Your task to perform on an android device: Do I have any events this weekend? Image 0: 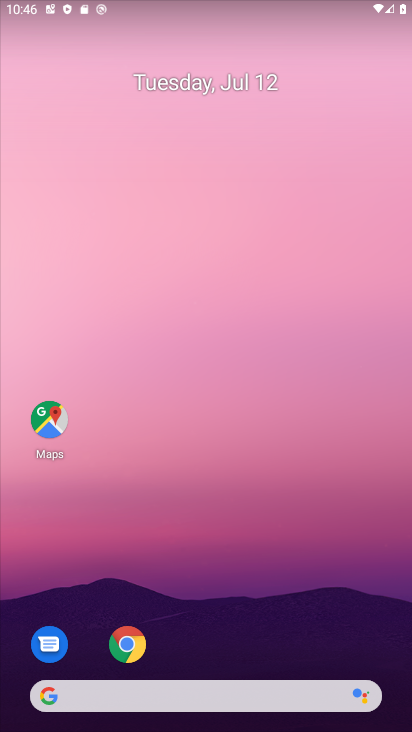
Step 0: drag from (216, 665) to (227, 3)
Your task to perform on an android device: Do I have any events this weekend? Image 1: 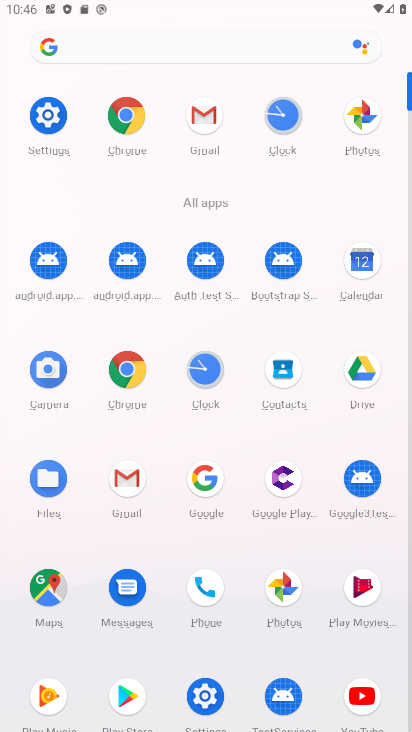
Step 1: click (357, 259)
Your task to perform on an android device: Do I have any events this weekend? Image 2: 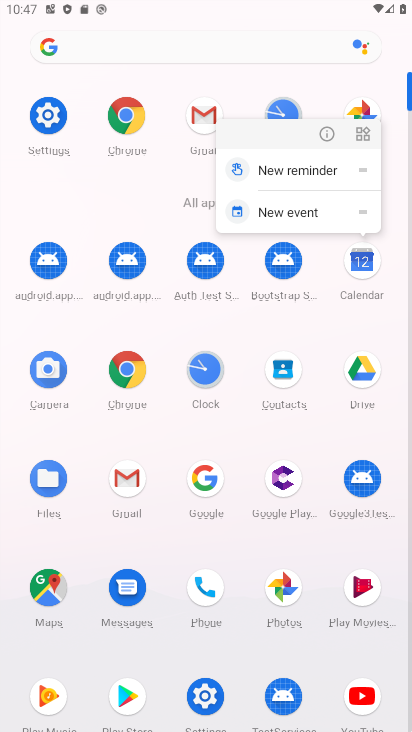
Step 2: click (365, 259)
Your task to perform on an android device: Do I have any events this weekend? Image 3: 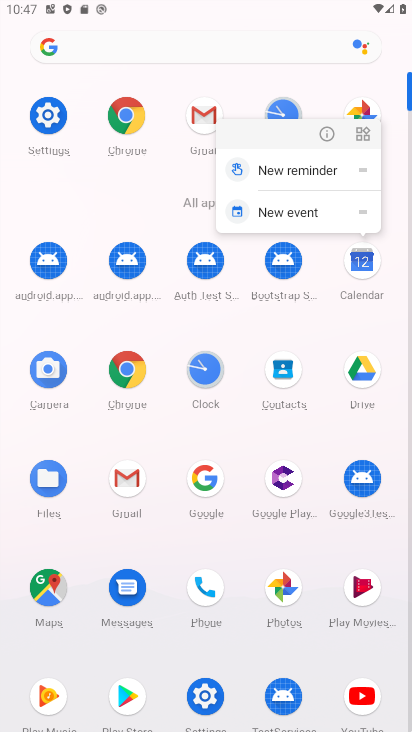
Step 3: click (359, 265)
Your task to perform on an android device: Do I have any events this weekend? Image 4: 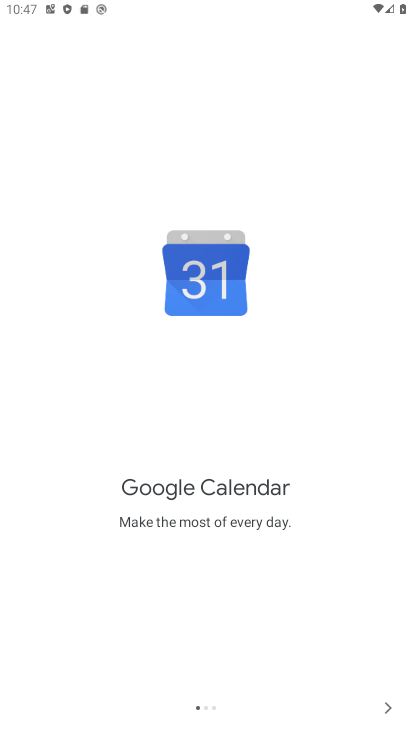
Step 4: click (387, 708)
Your task to perform on an android device: Do I have any events this weekend? Image 5: 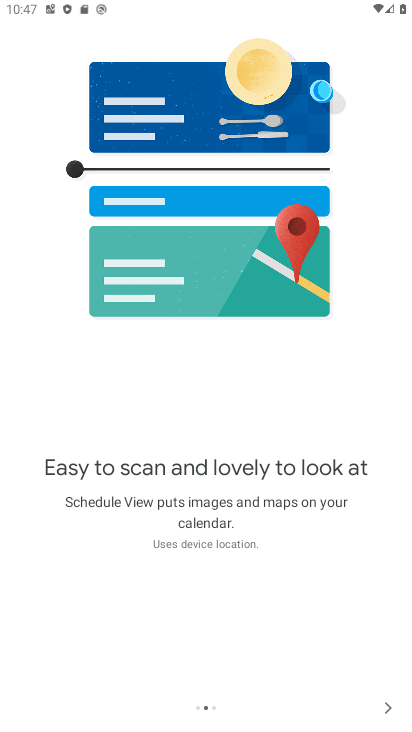
Step 5: click (388, 710)
Your task to perform on an android device: Do I have any events this weekend? Image 6: 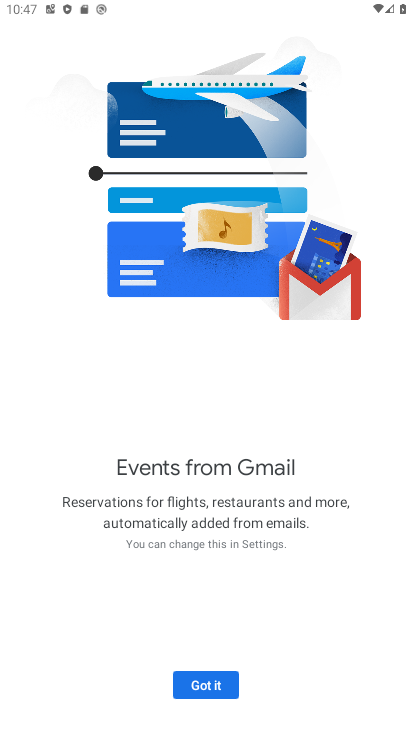
Step 6: click (205, 683)
Your task to perform on an android device: Do I have any events this weekend? Image 7: 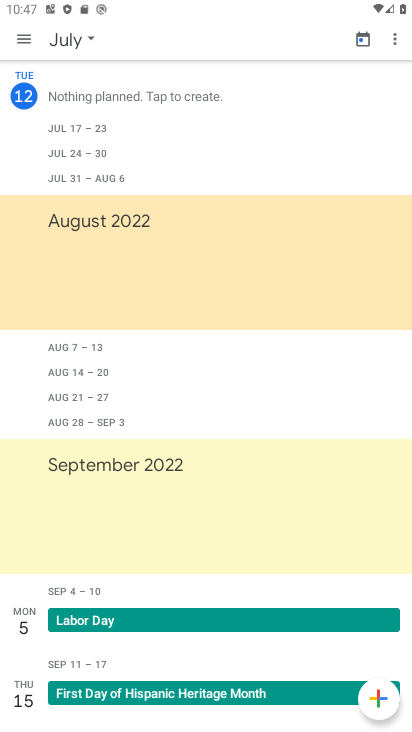
Step 7: click (39, 568)
Your task to perform on an android device: Do I have any events this weekend? Image 8: 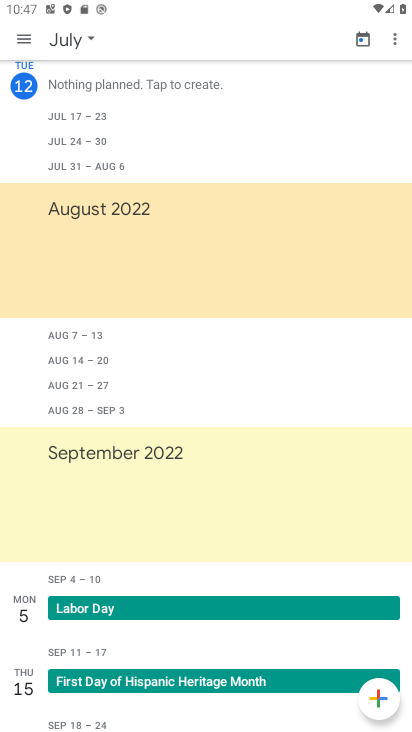
Step 8: click (21, 38)
Your task to perform on an android device: Do I have any events this weekend? Image 9: 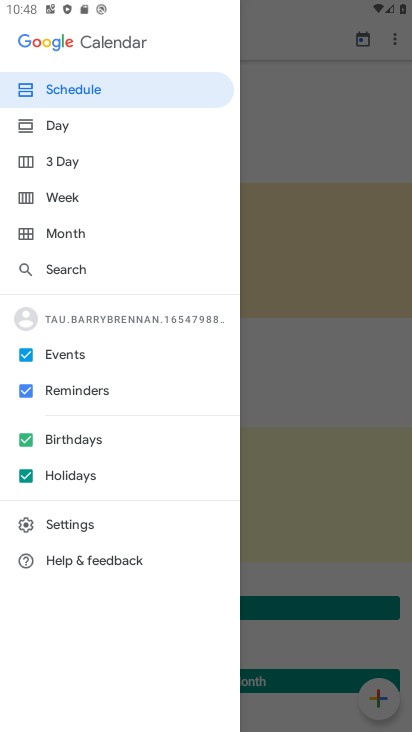
Step 9: click (86, 195)
Your task to perform on an android device: Do I have any events this weekend? Image 10: 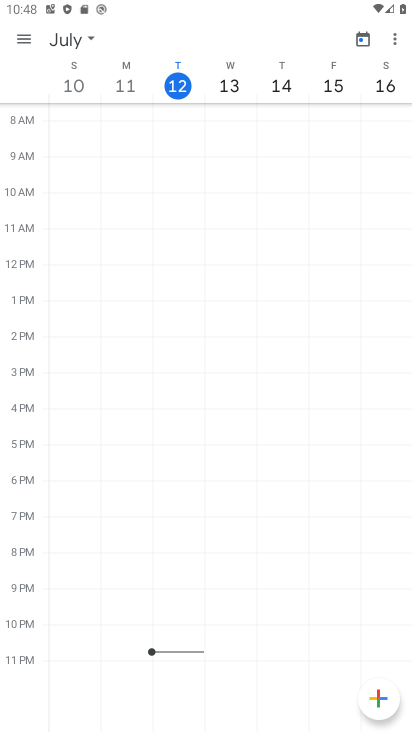
Step 10: click (23, 35)
Your task to perform on an android device: Do I have any events this weekend? Image 11: 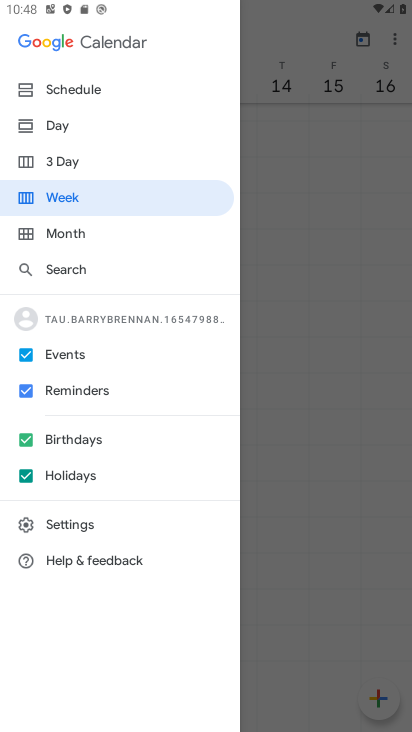
Step 11: click (27, 389)
Your task to perform on an android device: Do I have any events this weekend? Image 12: 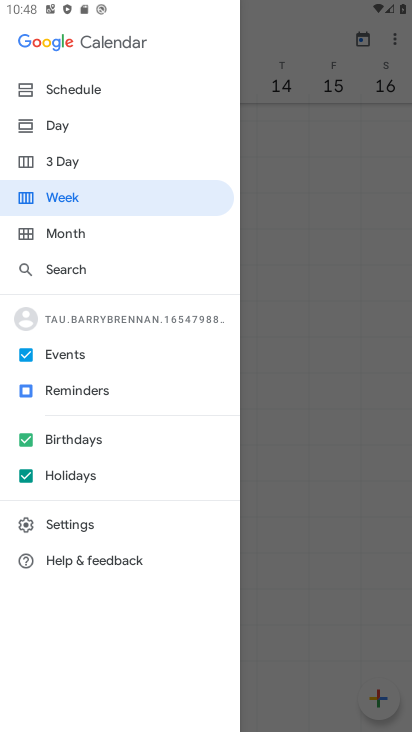
Step 12: click (24, 436)
Your task to perform on an android device: Do I have any events this weekend? Image 13: 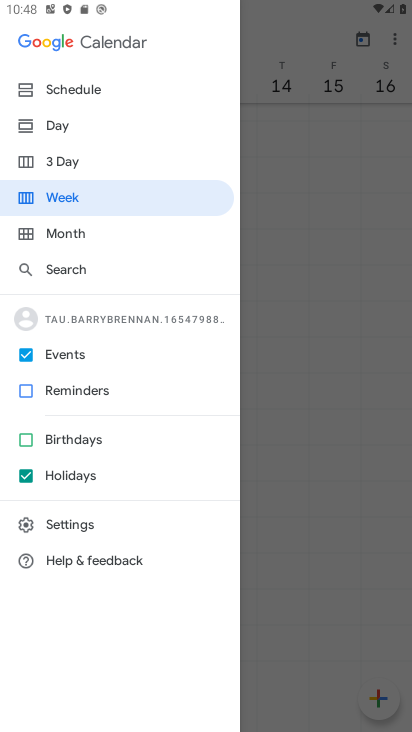
Step 13: click (24, 472)
Your task to perform on an android device: Do I have any events this weekend? Image 14: 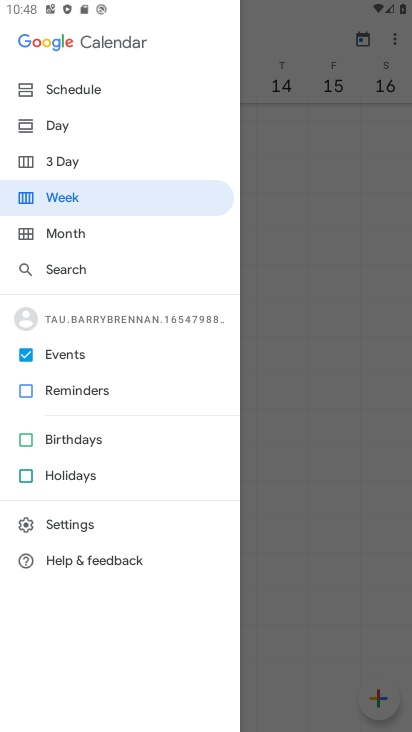
Step 14: click (76, 84)
Your task to perform on an android device: Do I have any events this weekend? Image 15: 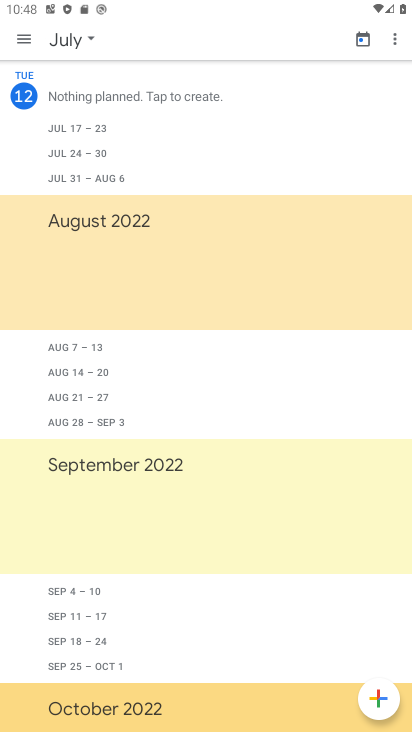
Step 15: task complete